Your task to perform on an android device: turn off picture-in-picture Image 0: 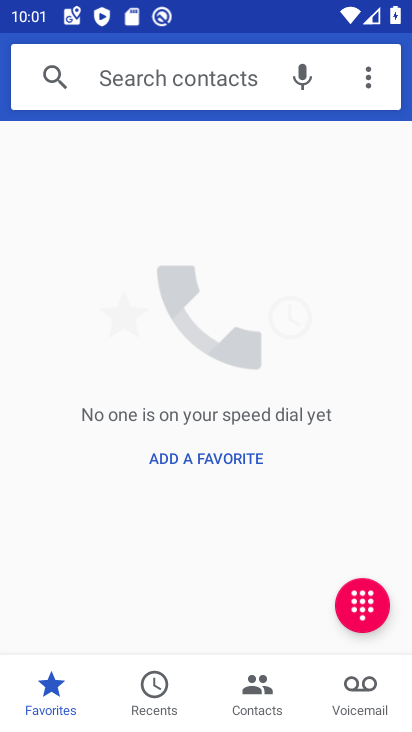
Step 0: press home button
Your task to perform on an android device: turn off picture-in-picture Image 1: 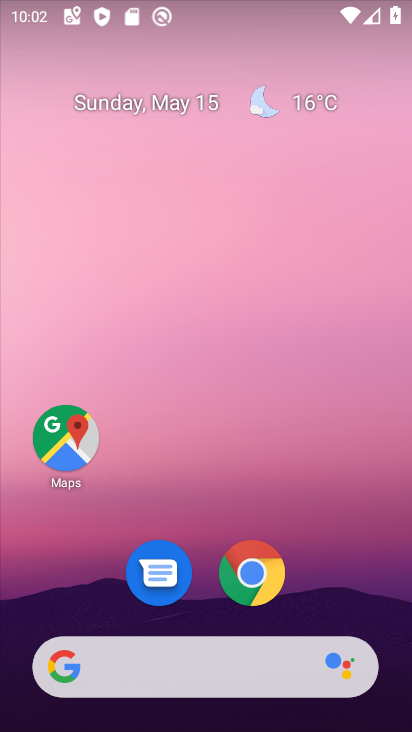
Step 1: click (245, 587)
Your task to perform on an android device: turn off picture-in-picture Image 2: 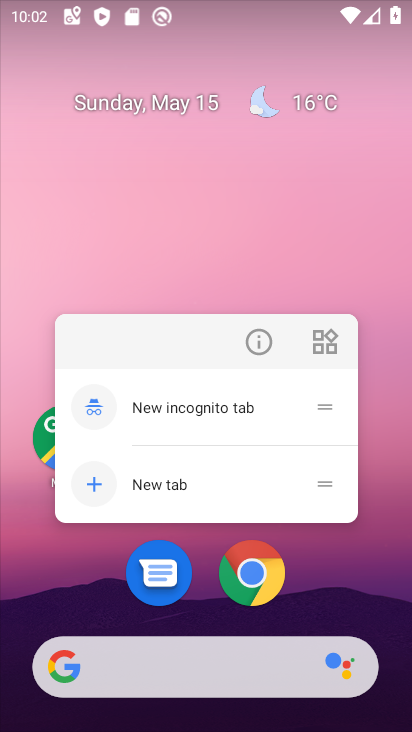
Step 2: click (263, 355)
Your task to perform on an android device: turn off picture-in-picture Image 3: 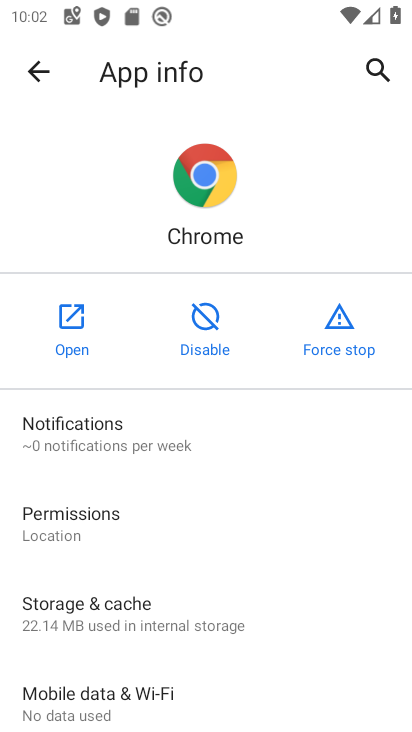
Step 3: click (146, 529)
Your task to perform on an android device: turn off picture-in-picture Image 4: 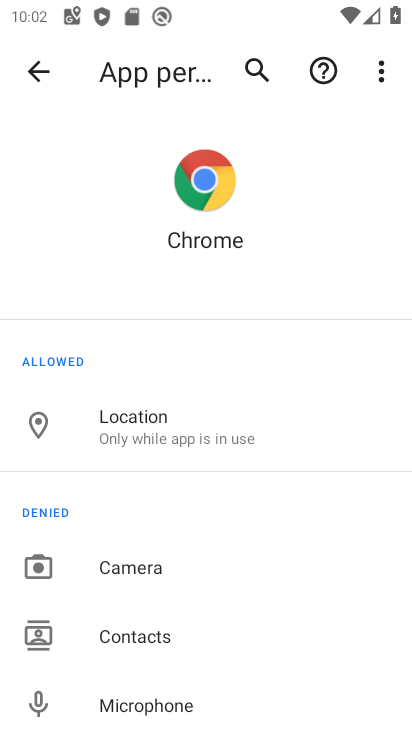
Step 4: drag from (212, 586) to (155, 179)
Your task to perform on an android device: turn off picture-in-picture Image 5: 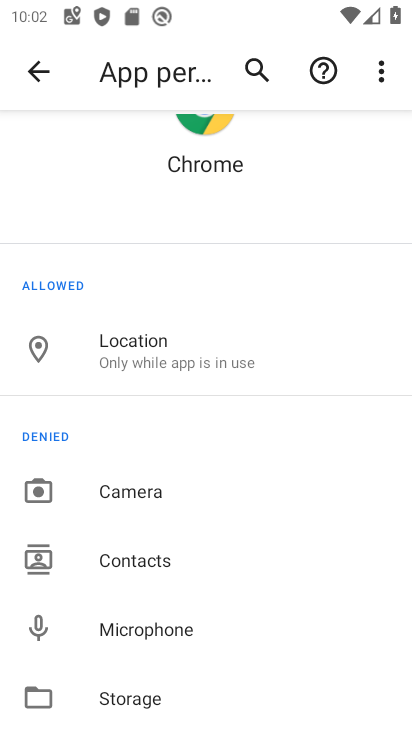
Step 5: click (38, 81)
Your task to perform on an android device: turn off picture-in-picture Image 6: 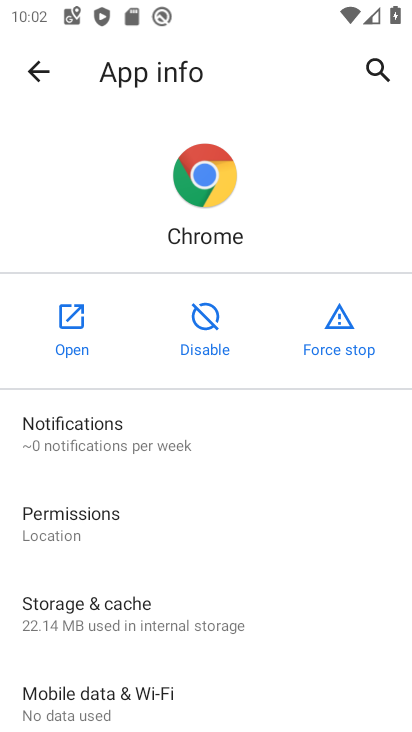
Step 6: click (137, 416)
Your task to perform on an android device: turn off picture-in-picture Image 7: 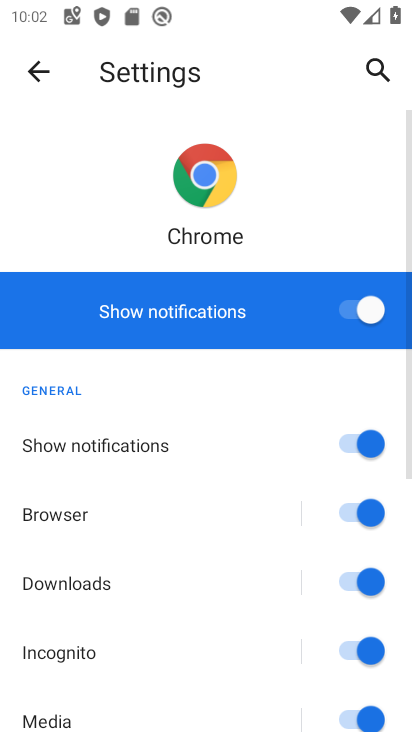
Step 7: click (42, 64)
Your task to perform on an android device: turn off picture-in-picture Image 8: 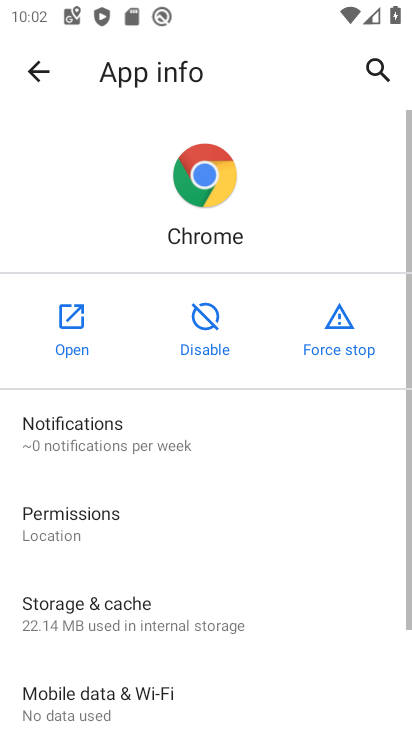
Step 8: drag from (214, 528) to (218, 99)
Your task to perform on an android device: turn off picture-in-picture Image 9: 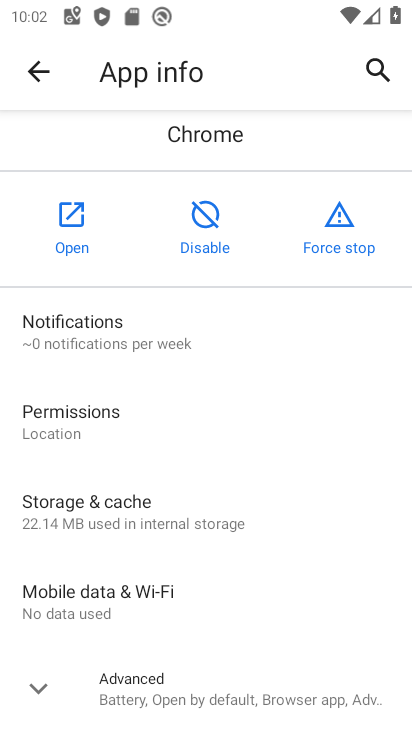
Step 9: drag from (165, 536) to (165, 73)
Your task to perform on an android device: turn off picture-in-picture Image 10: 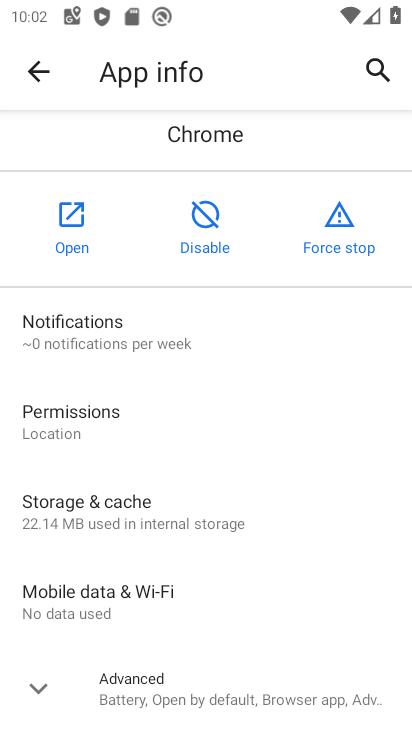
Step 10: click (159, 689)
Your task to perform on an android device: turn off picture-in-picture Image 11: 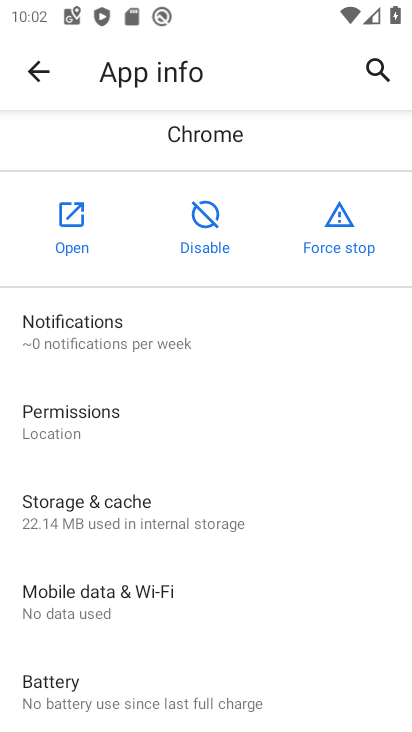
Step 11: drag from (324, 472) to (318, 38)
Your task to perform on an android device: turn off picture-in-picture Image 12: 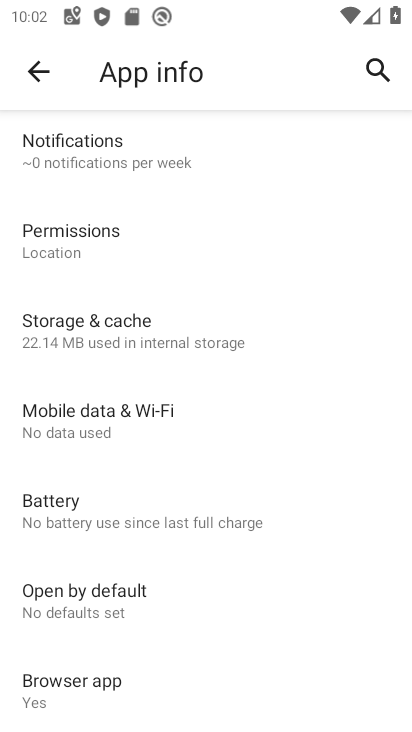
Step 12: drag from (246, 573) to (216, 96)
Your task to perform on an android device: turn off picture-in-picture Image 13: 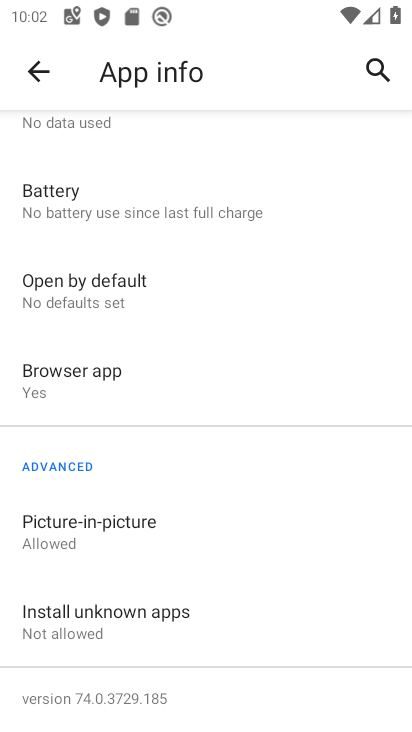
Step 13: click (182, 542)
Your task to perform on an android device: turn off picture-in-picture Image 14: 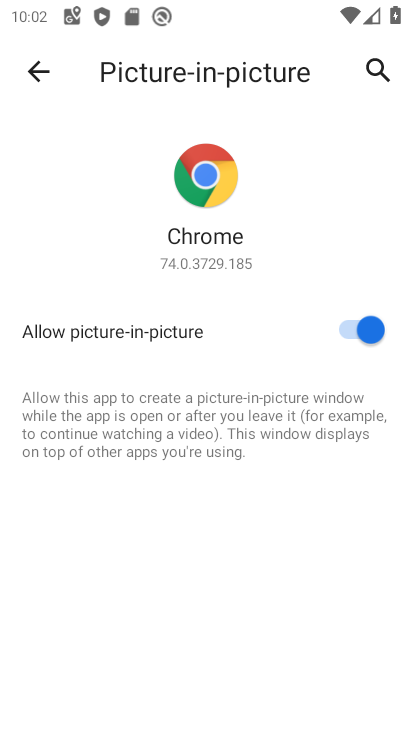
Step 14: click (360, 329)
Your task to perform on an android device: turn off picture-in-picture Image 15: 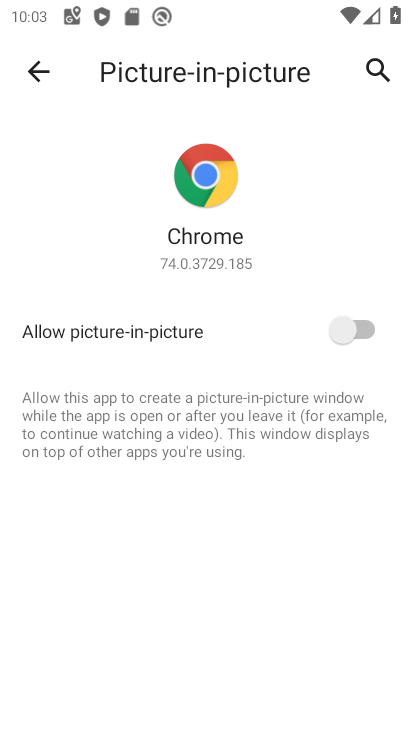
Step 15: task complete